Your task to perform on an android device: change the clock display to show seconds Image 0: 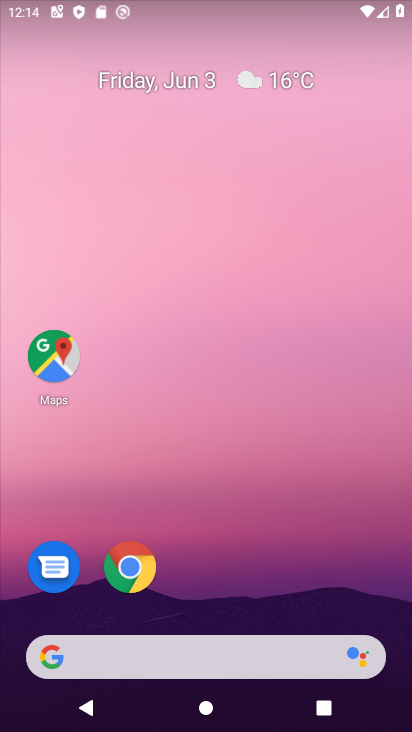
Step 0: drag from (266, 614) to (361, 127)
Your task to perform on an android device: change the clock display to show seconds Image 1: 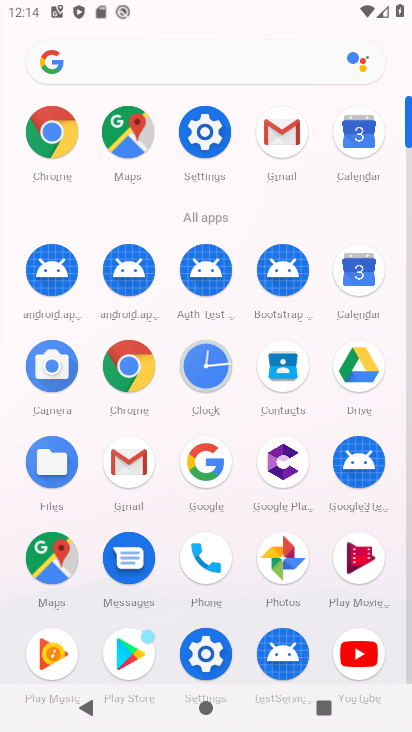
Step 1: click (188, 356)
Your task to perform on an android device: change the clock display to show seconds Image 2: 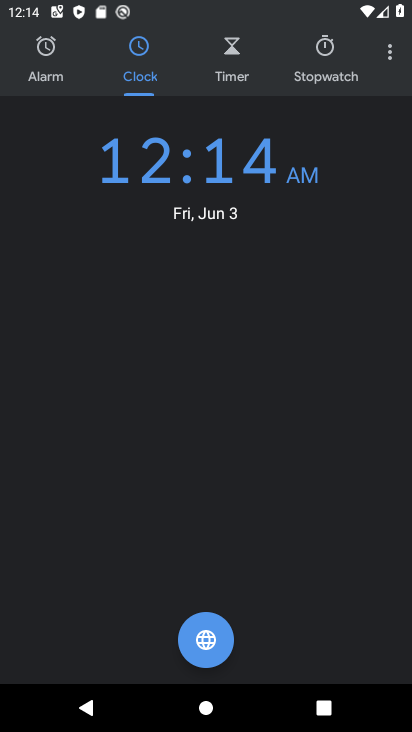
Step 2: click (404, 58)
Your task to perform on an android device: change the clock display to show seconds Image 3: 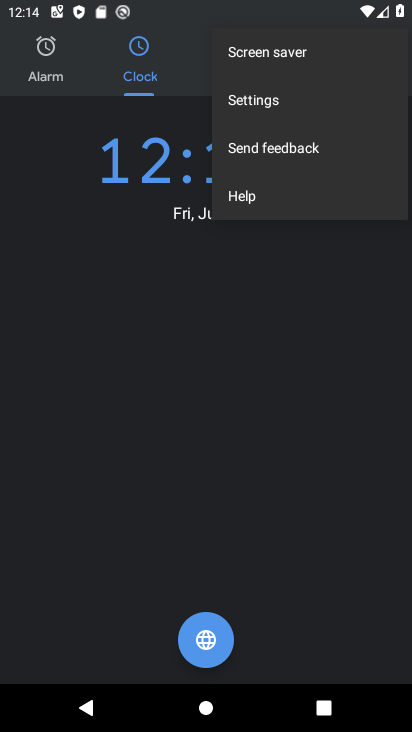
Step 3: click (315, 98)
Your task to perform on an android device: change the clock display to show seconds Image 4: 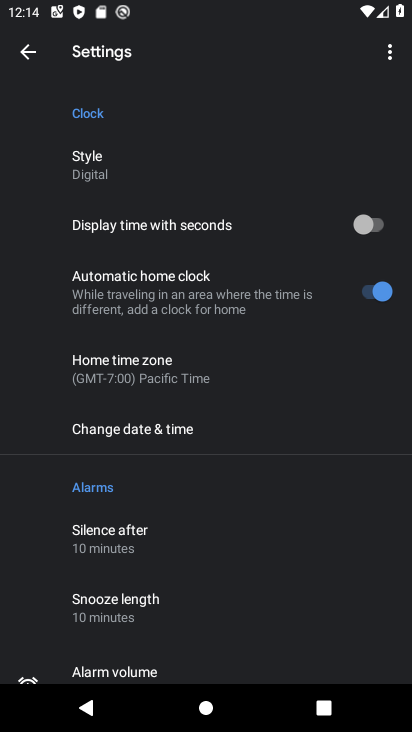
Step 4: click (374, 216)
Your task to perform on an android device: change the clock display to show seconds Image 5: 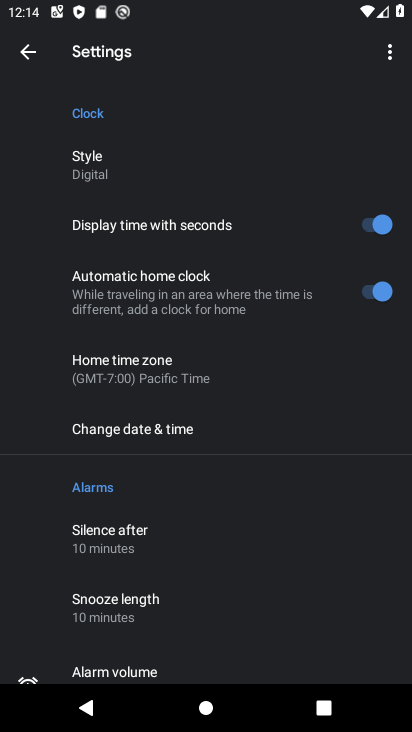
Step 5: task complete